Your task to perform on an android device: delete a single message in the gmail app Image 0: 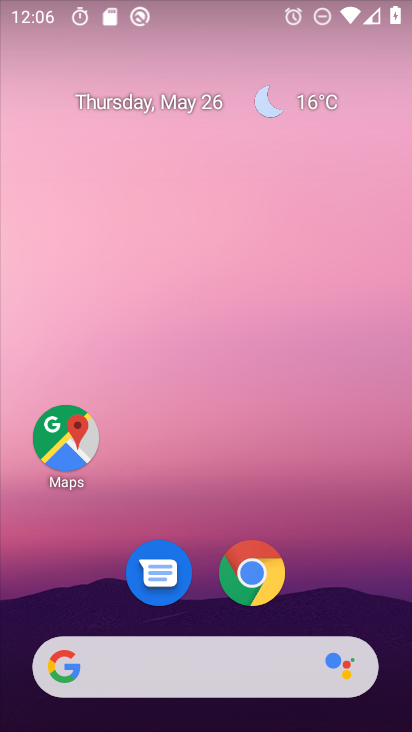
Step 0: drag from (380, 574) to (371, 7)
Your task to perform on an android device: delete a single message in the gmail app Image 1: 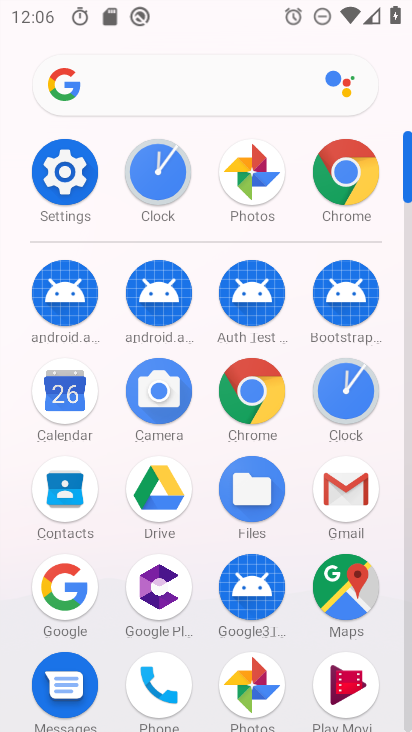
Step 1: click (346, 497)
Your task to perform on an android device: delete a single message in the gmail app Image 2: 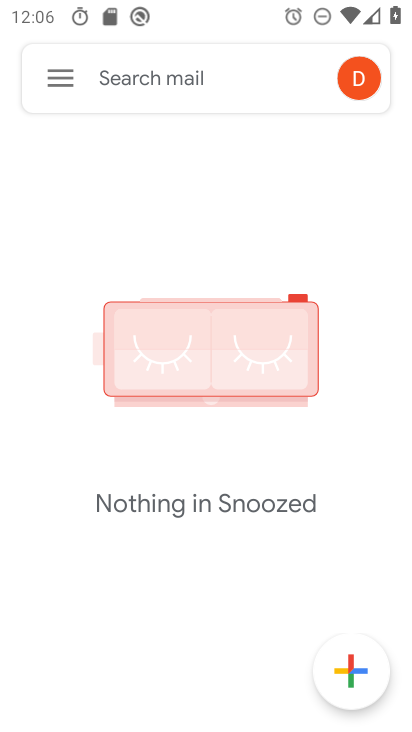
Step 2: click (62, 72)
Your task to perform on an android device: delete a single message in the gmail app Image 3: 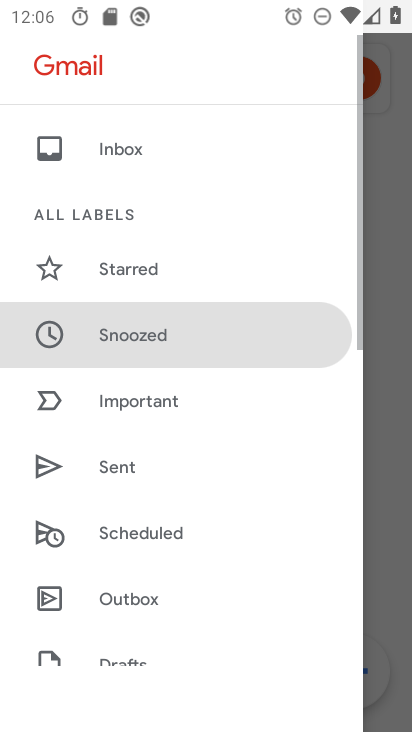
Step 3: drag from (135, 483) to (159, 83)
Your task to perform on an android device: delete a single message in the gmail app Image 4: 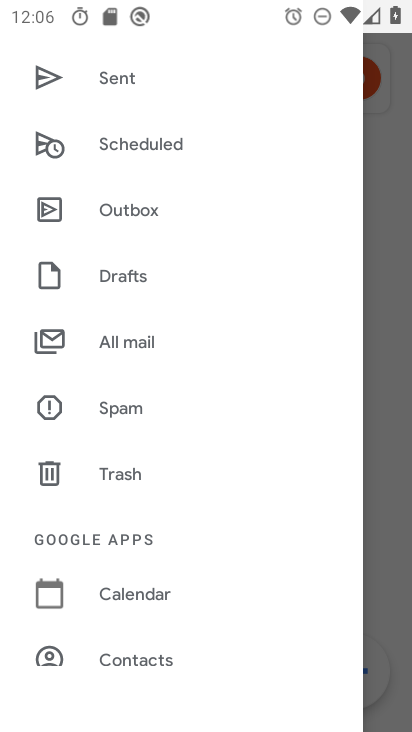
Step 4: click (111, 339)
Your task to perform on an android device: delete a single message in the gmail app Image 5: 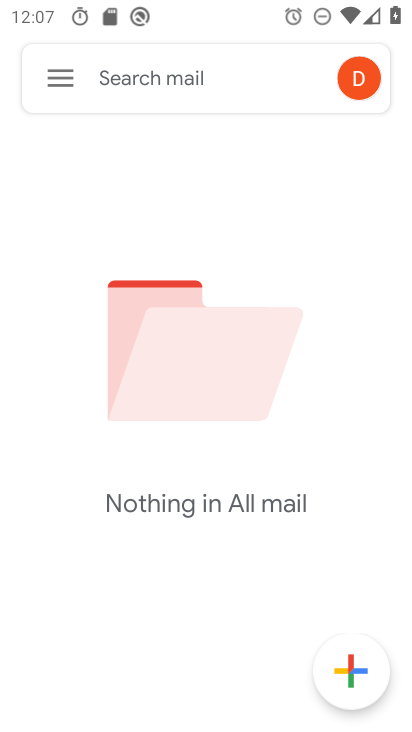
Step 5: task complete